Your task to perform on an android device: Go to Amazon Image 0: 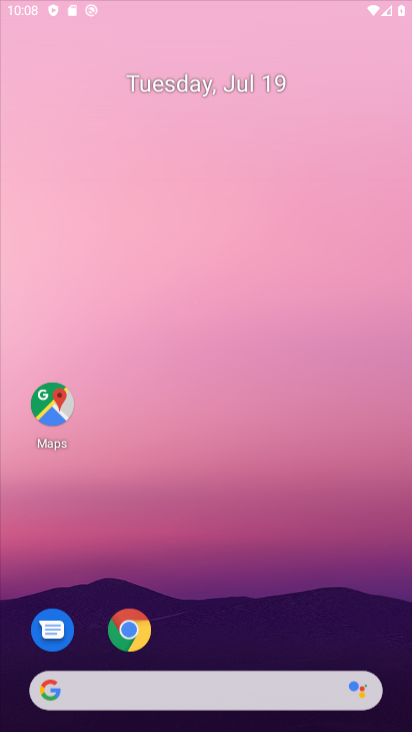
Step 0: press home button
Your task to perform on an android device: Go to Amazon Image 1: 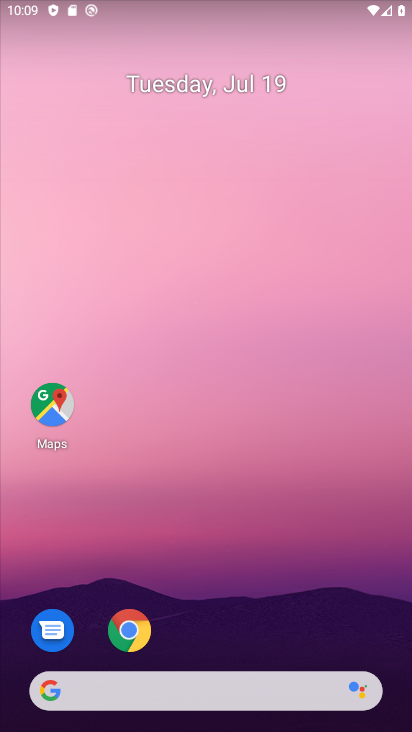
Step 1: click (41, 692)
Your task to perform on an android device: Go to Amazon Image 2: 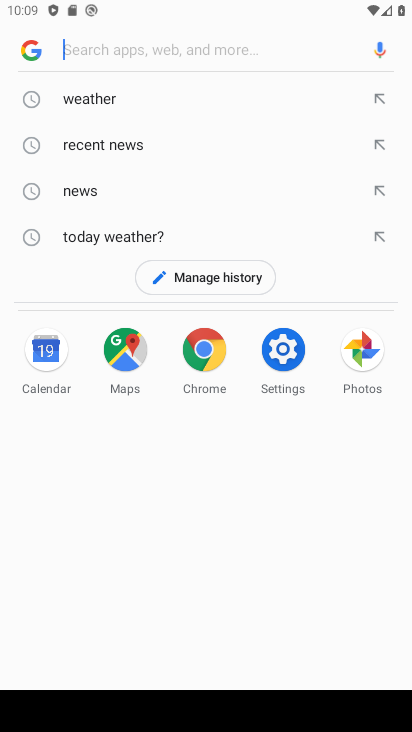
Step 2: type " Amazon"
Your task to perform on an android device: Go to Amazon Image 3: 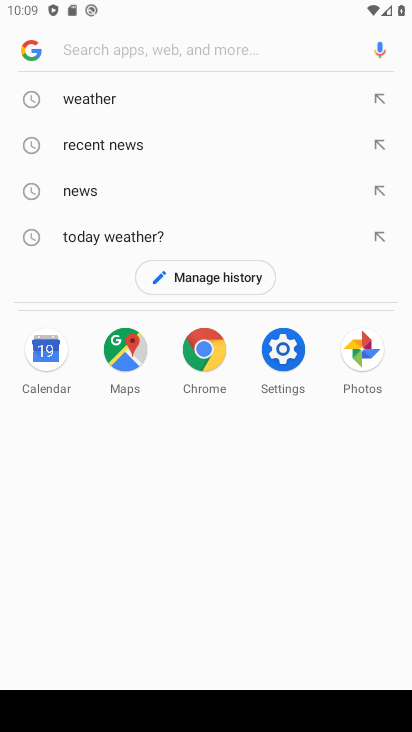
Step 3: click (260, 53)
Your task to perform on an android device: Go to Amazon Image 4: 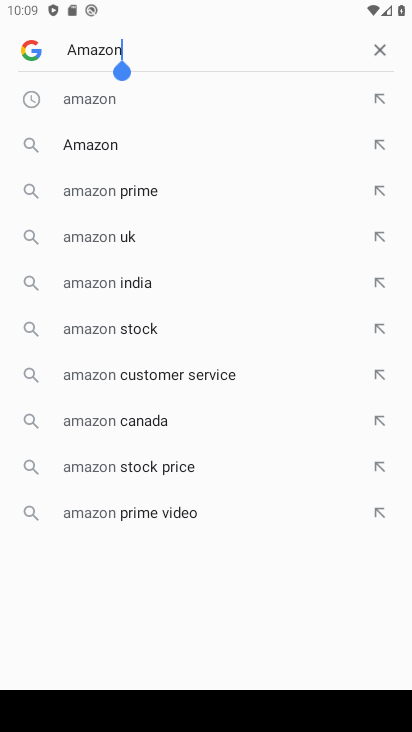
Step 4: click (85, 148)
Your task to perform on an android device: Go to Amazon Image 5: 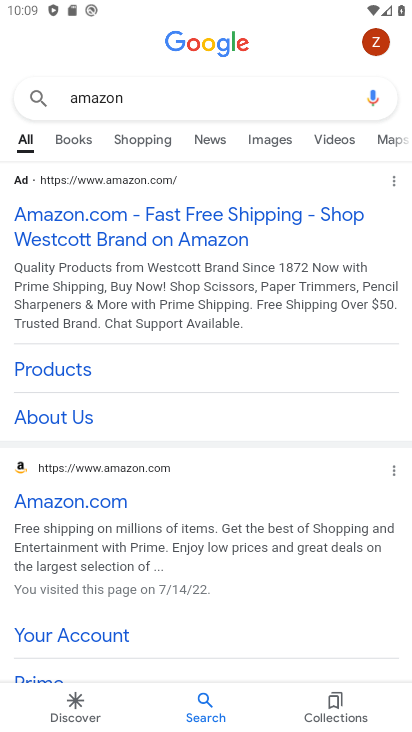
Step 5: click (103, 226)
Your task to perform on an android device: Go to Amazon Image 6: 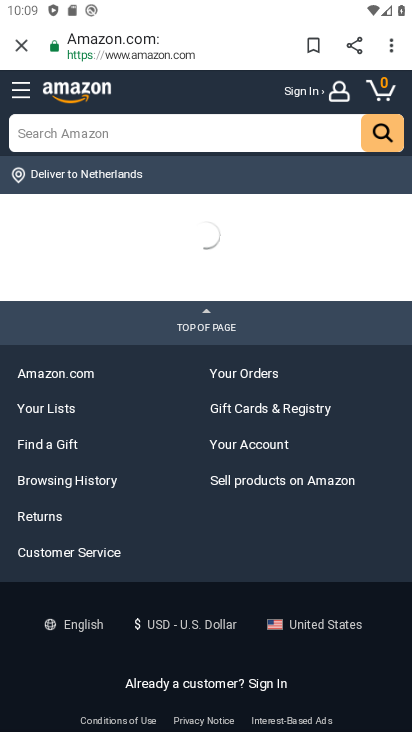
Step 6: task complete